Your task to perform on an android device: allow notifications from all sites in the chrome app Image 0: 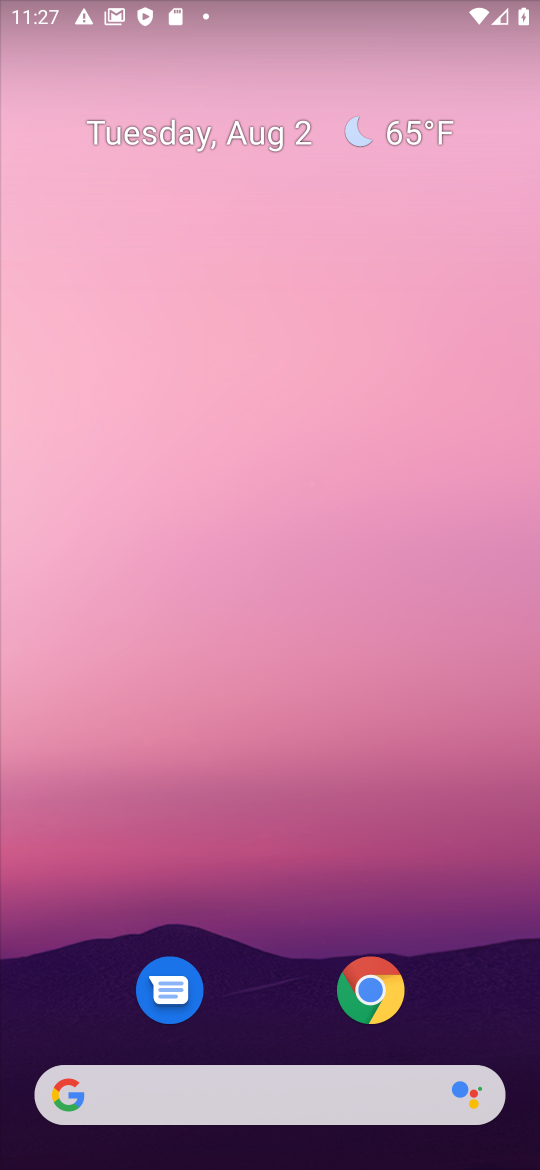
Step 0: drag from (275, 1032) to (344, 287)
Your task to perform on an android device: allow notifications from all sites in the chrome app Image 1: 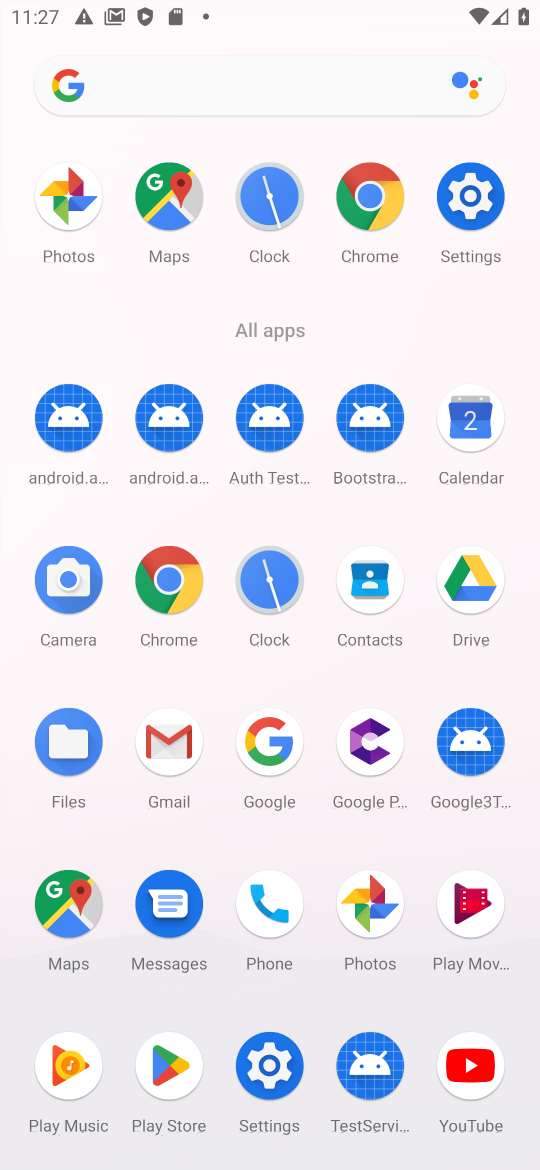
Step 1: click (176, 592)
Your task to perform on an android device: allow notifications from all sites in the chrome app Image 2: 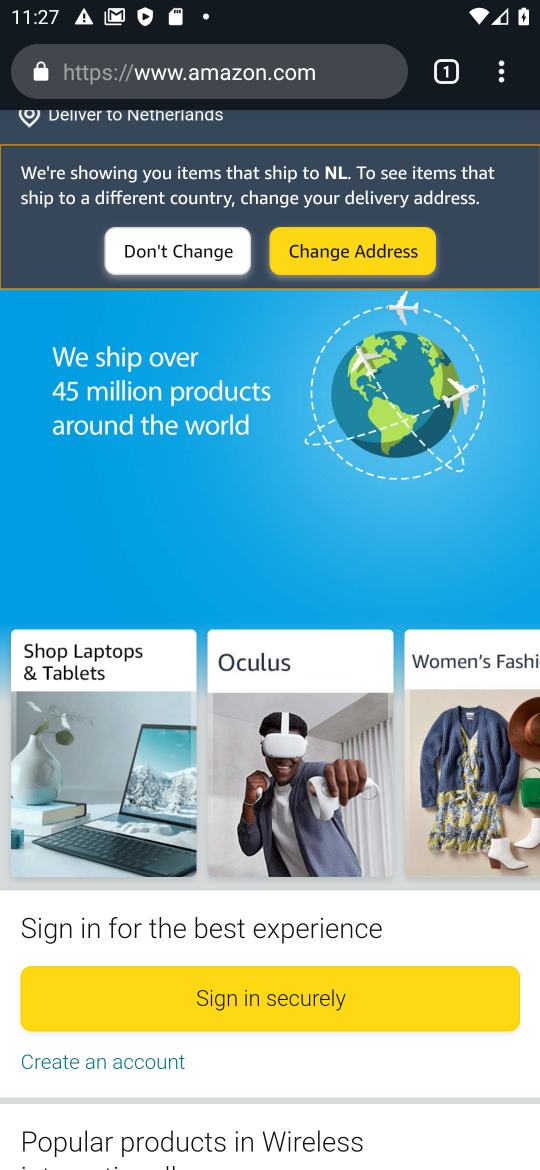
Step 2: click (502, 71)
Your task to perform on an android device: allow notifications from all sites in the chrome app Image 3: 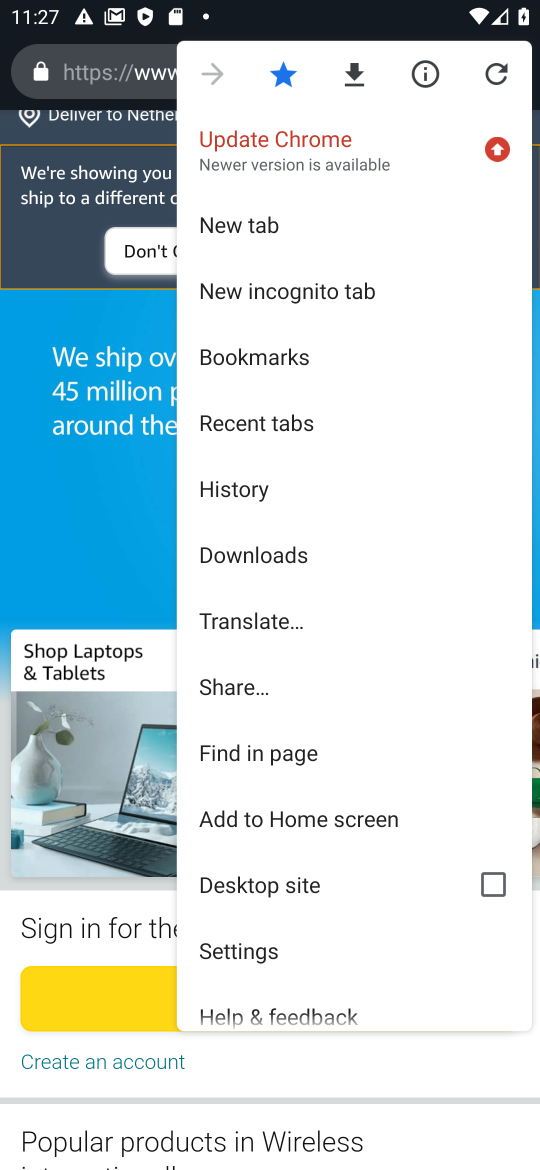
Step 3: click (257, 951)
Your task to perform on an android device: allow notifications from all sites in the chrome app Image 4: 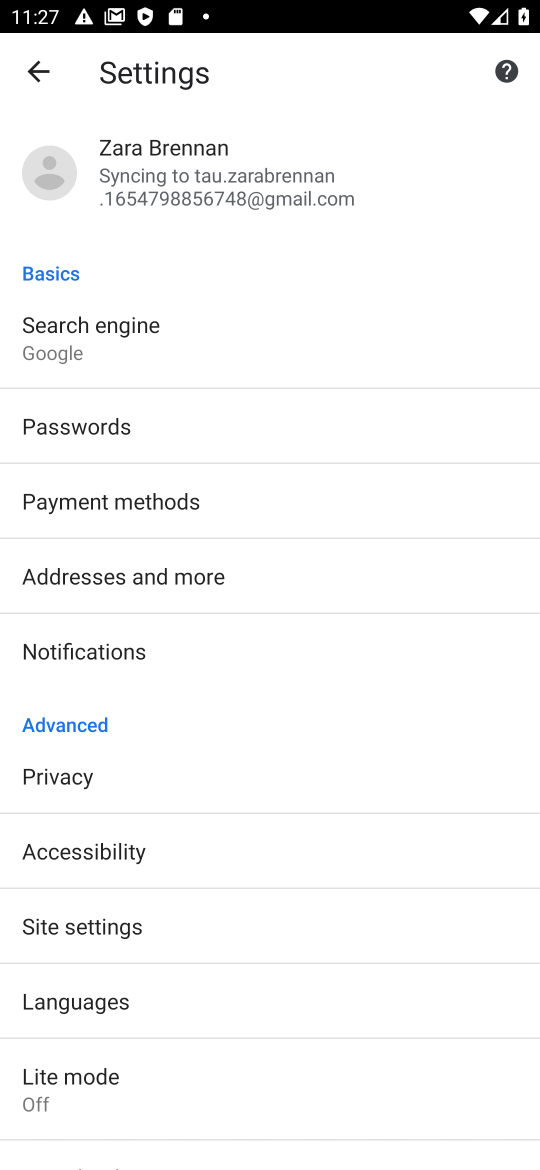
Step 4: click (142, 663)
Your task to perform on an android device: allow notifications from all sites in the chrome app Image 5: 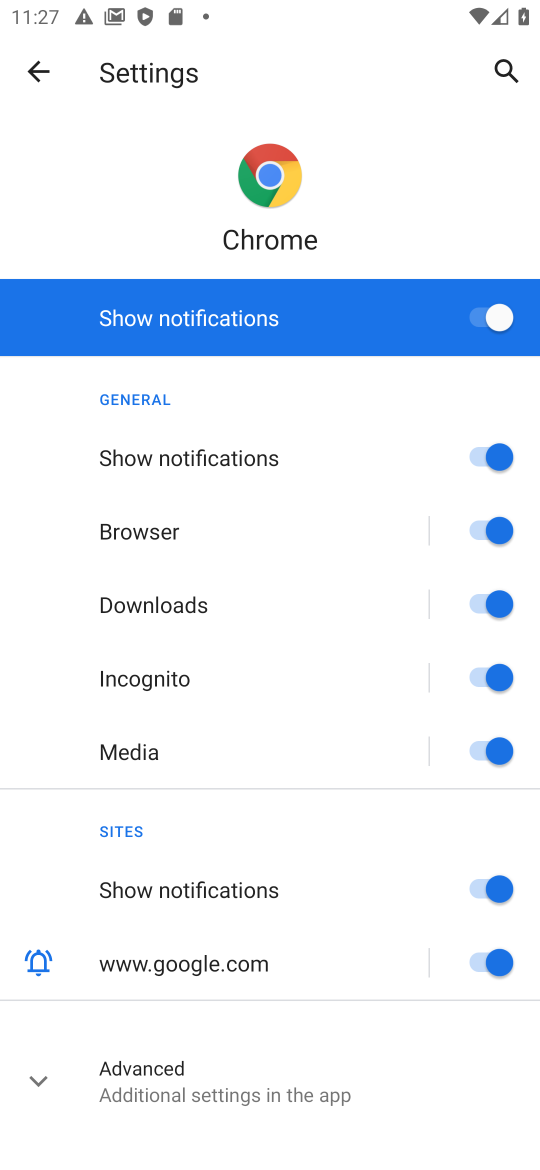
Step 5: task complete